Your task to perform on an android device: Open the phone app and click the voicemail tab. Image 0: 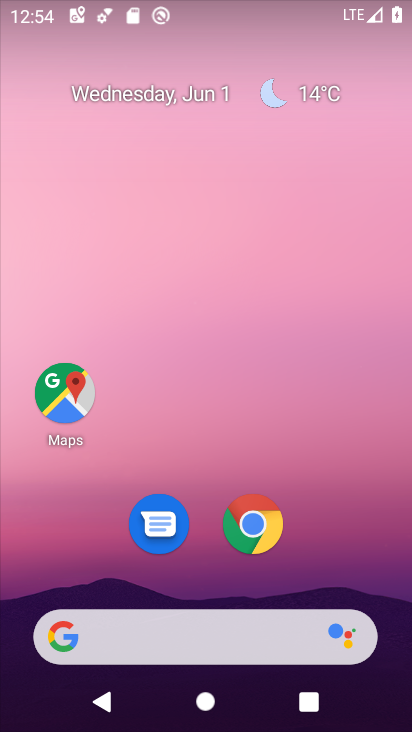
Step 0: drag from (205, 494) to (236, 1)
Your task to perform on an android device: Open the phone app and click the voicemail tab. Image 1: 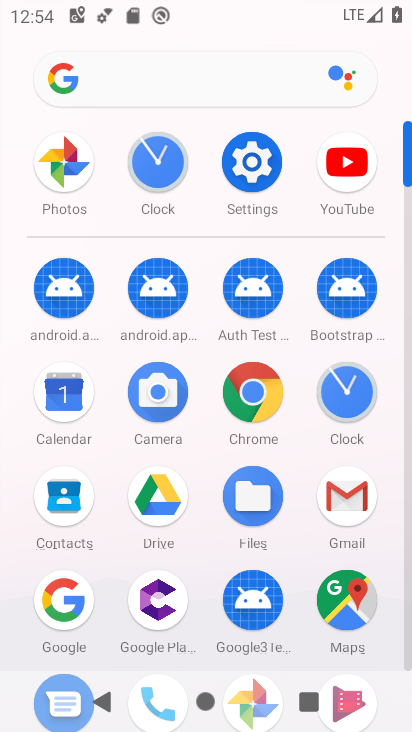
Step 1: drag from (206, 466) to (209, 207)
Your task to perform on an android device: Open the phone app and click the voicemail tab. Image 2: 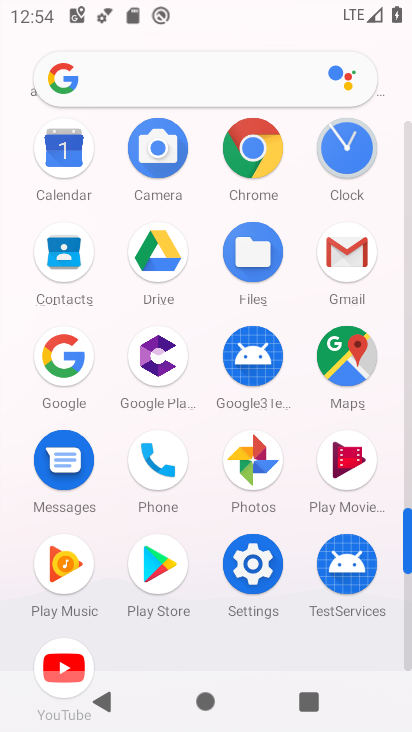
Step 2: click (164, 457)
Your task to perform on an android device: Open the phone app and click the voicemail tab. Image 3: 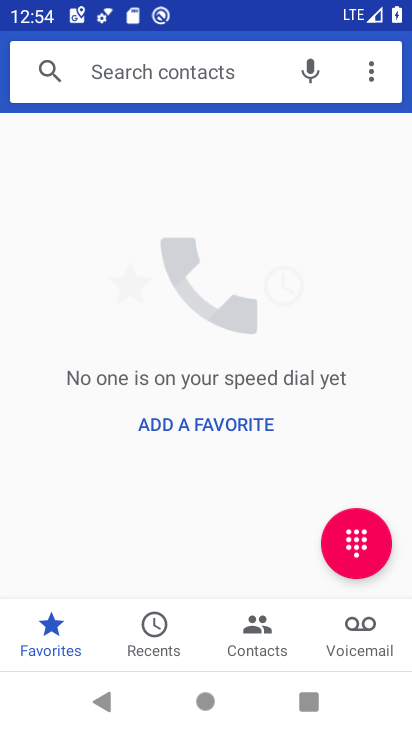
Step 3: click (367, 640)
Your task to perform on an android device: Open the phone app and click the voicemail tab. Image 4: 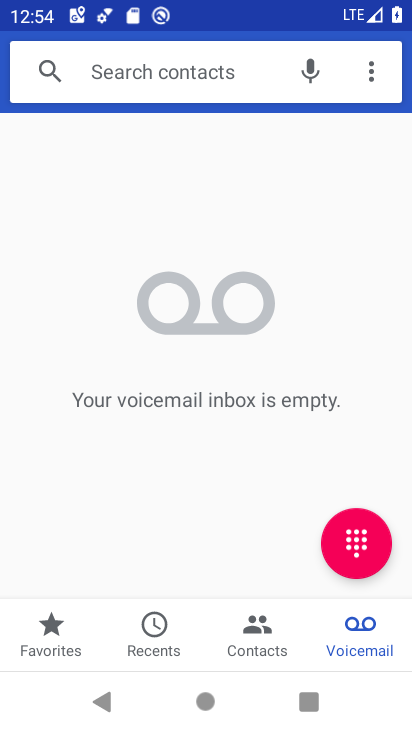
Step 4: task complete